Your task to perform on an android device: See recent photos Image 0: 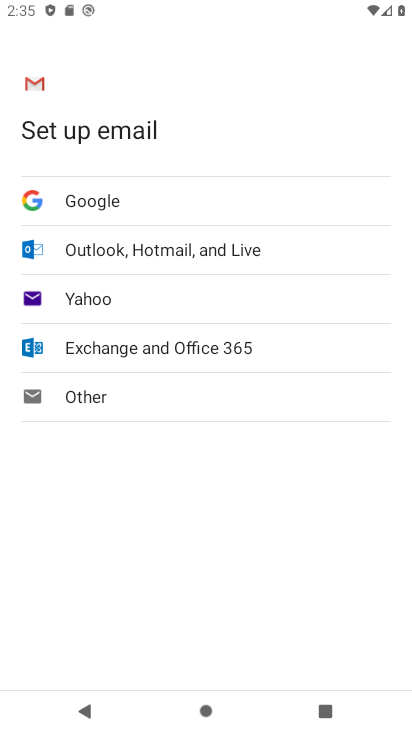
Step 0: press home button
Your task to perform on an android device: See recent photos Image 1: 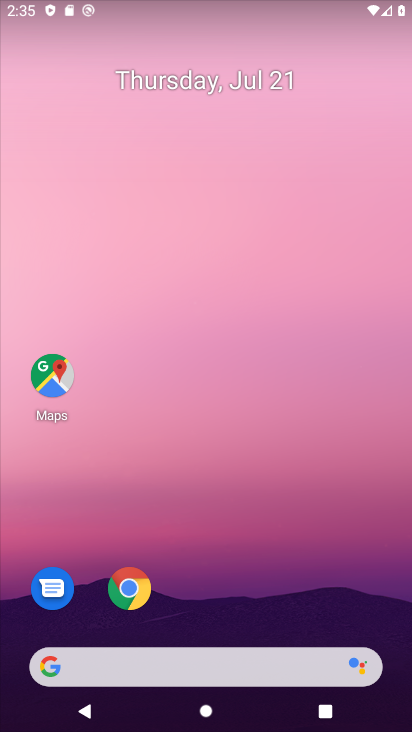
Step 1: drag from (280, 545) to (191, 13)
Your task to perform on an android device: See recent photos Image 2: 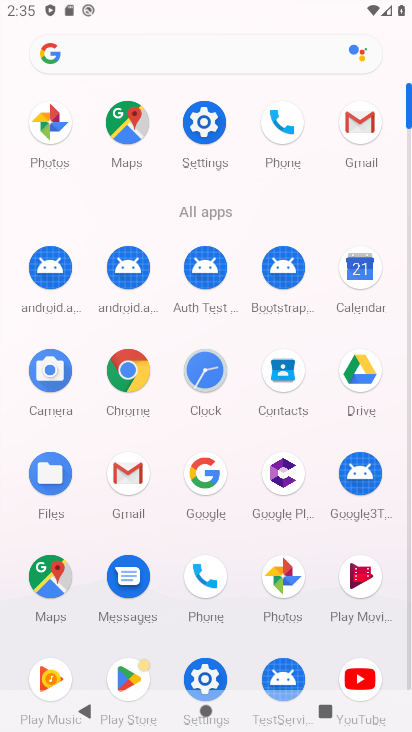
Step 2: click (49, 122)
Your task to perform on an android device: See recent photos Image 3: 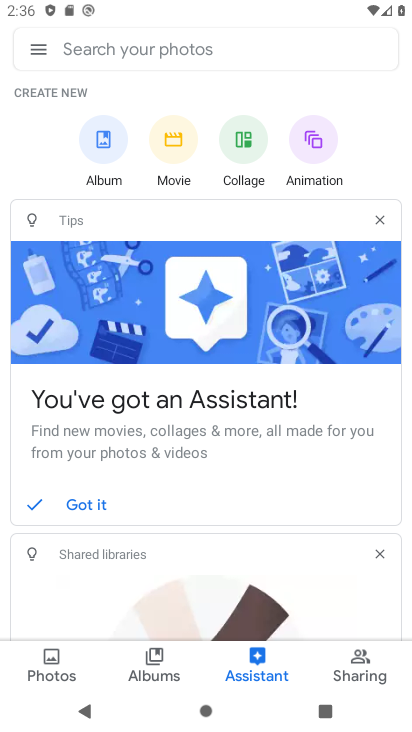
Step 3: click (53, 658)
Your task to perform on an android device: See recent photos Image 4: 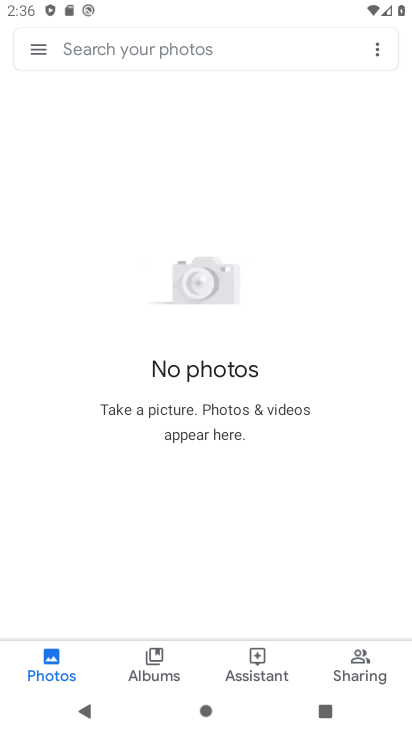
Step 4: task complete